Your task to perform on an android device: Go to Yahoo.com Image 0: 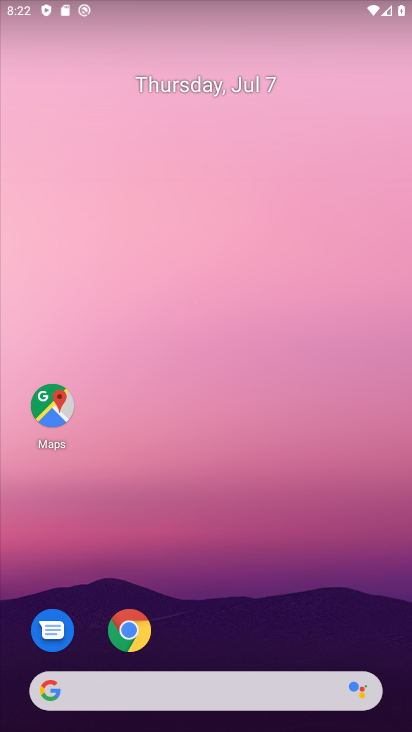
Step 0: click (123, 638)
Your task to perform on an android device: Go to Yahoo.com Image 1: 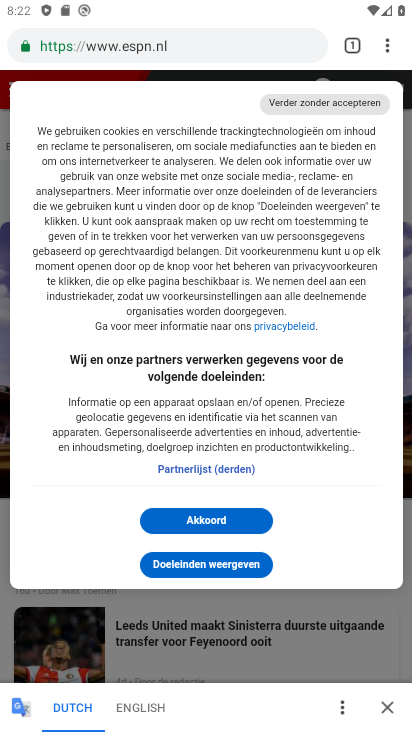
Step 1: click (207, 47)
Your task to perform on an android device: Go to Yahoo.com Image 2: 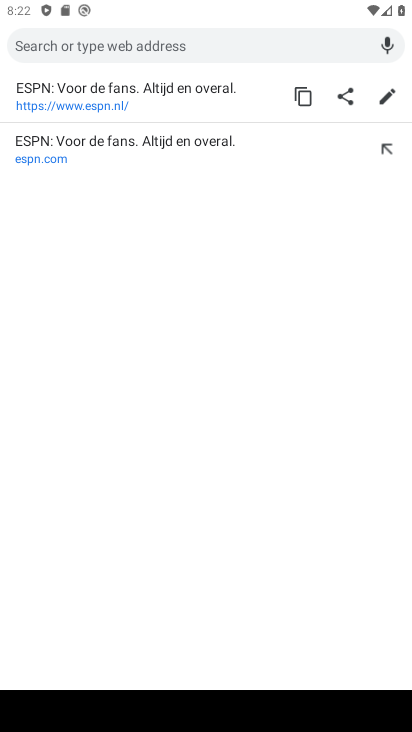
Step 2: type "yahoo.com"
Your task to perform on an android device: Go to Yahoo.com Image 3: 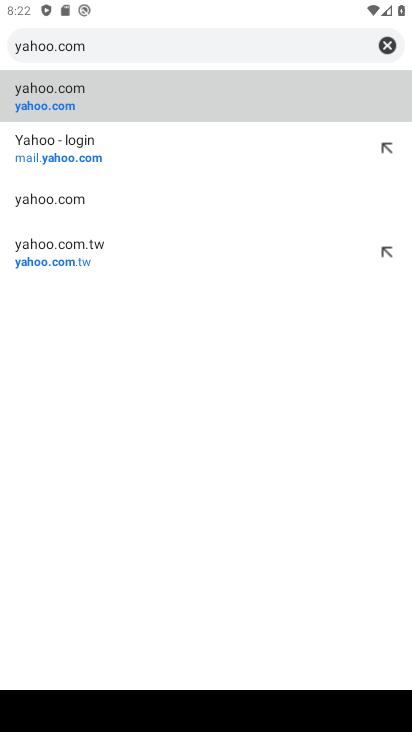
Step 3: click (92, 98)
Your task to perform on an android device: Go to Yahoo.com Image 4: 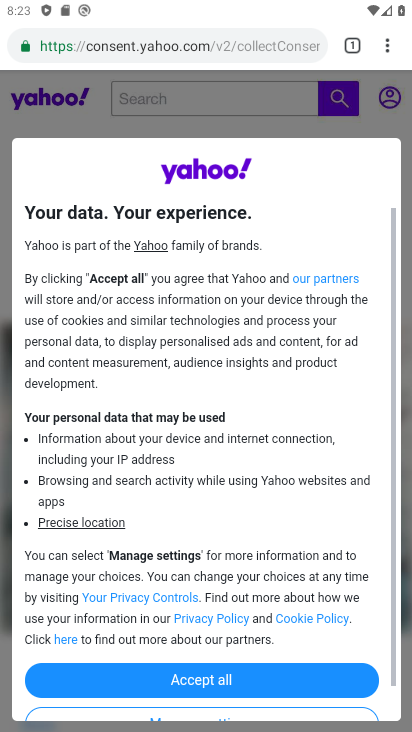
Step 4: task complete